Your task to perform on an android device: Open internet settings Image 0: 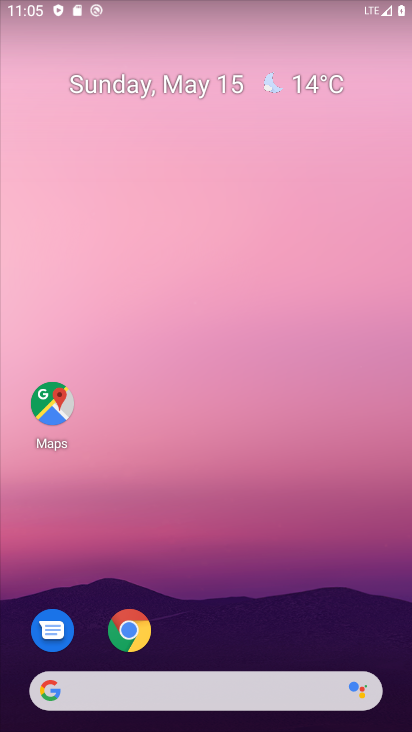
Step 0: drag from (46, 622) to (228, 228)
Your task to perform on an android device: Open internet settings Image 1: 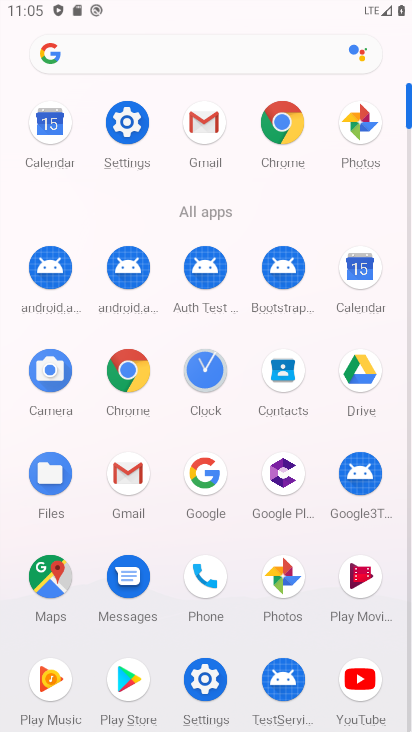
Step 1: click (127, 137)
Your task to perform on an android device: Open internet settings Image 2: 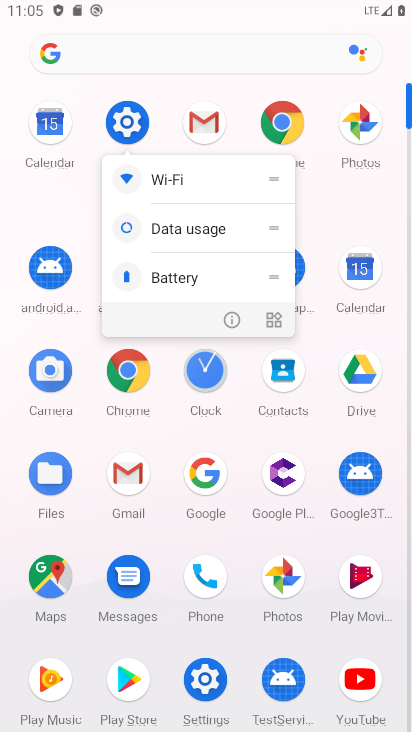
Step 2: click (132, 115)
Your task to perform on an android device: Open internet settings Image 3: 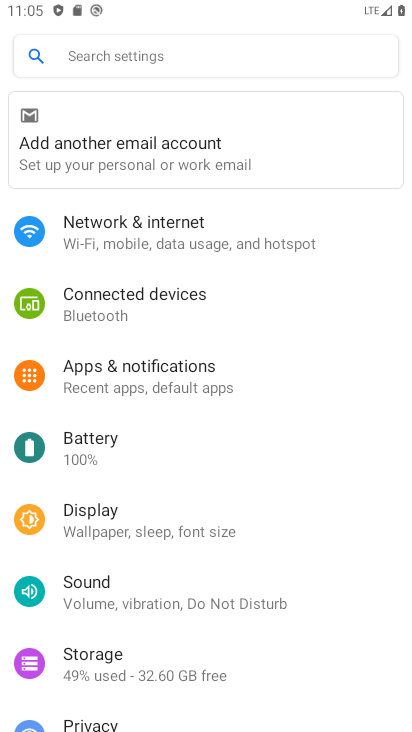
Step 3: click (88, 239)
Your task to perform on an android device: Open internet settings Image 4: 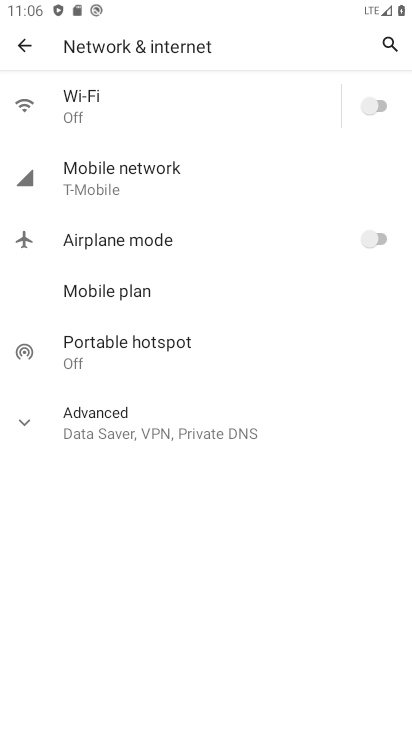
Step 4: click (159, 176)
Your task to perform on an android device: Open internet settings Image 5: 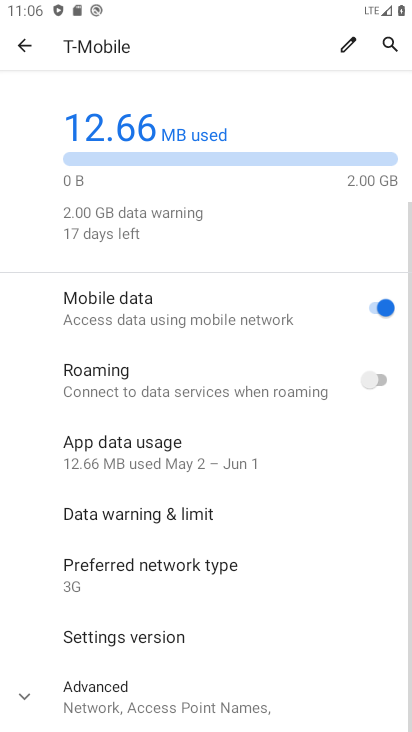
Step 5: task complete